Your task to perform on an android device: Open battery settings Image 0: 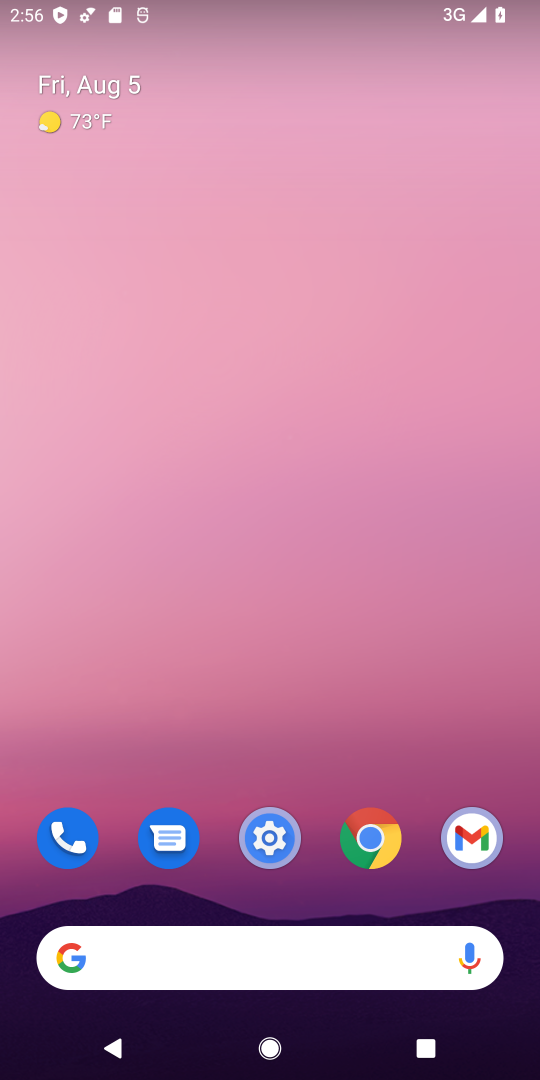
Step 0: drag from (121, 952) to (263, 249)
Your task to perform on an android device: Open battery settings Image 1: 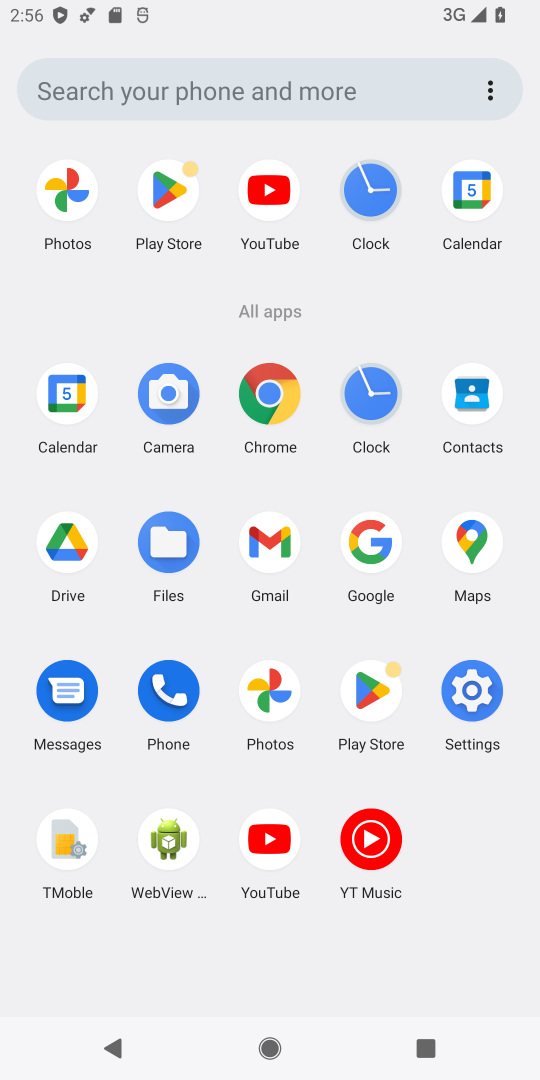
Step 1: click (469, 704)
Your task to perform on an android device: Open battery settings Image 2: 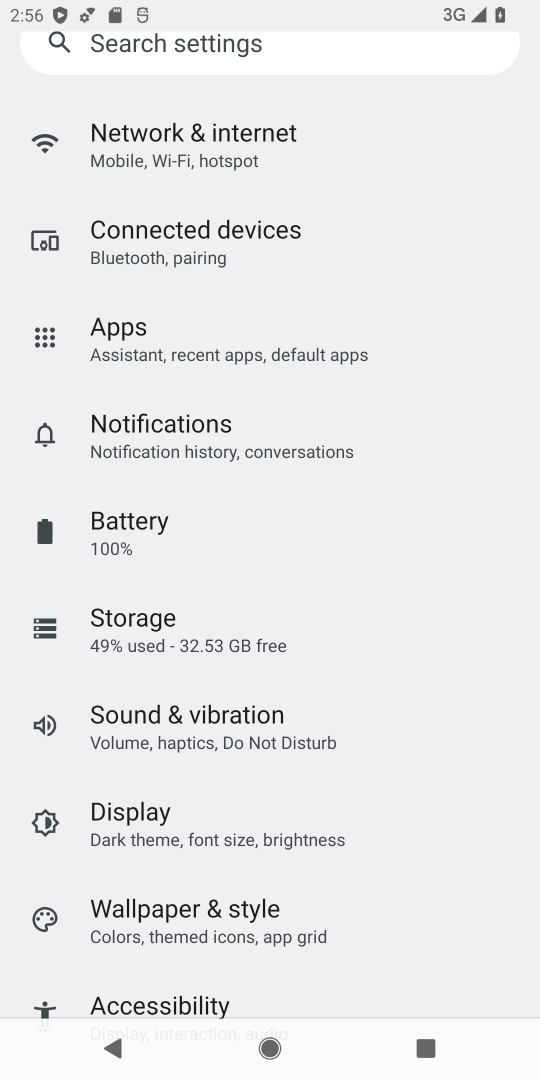
Step 2: click (104, 533)
Your task to perform on an android device: Open battery settings Image 3: 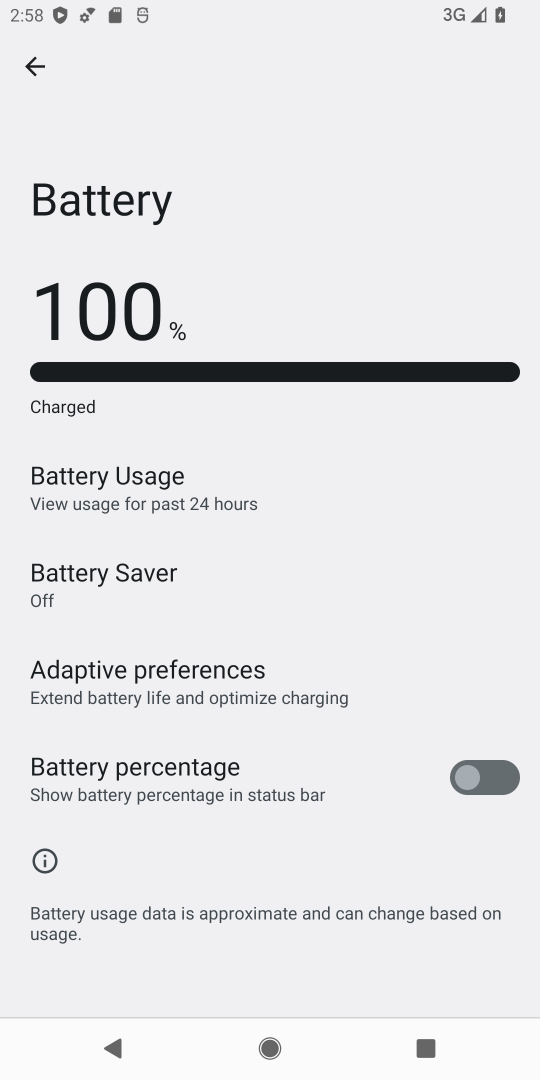
Step 3: task complete